Your task to perform on an android device: all mails in gmail Image 0: 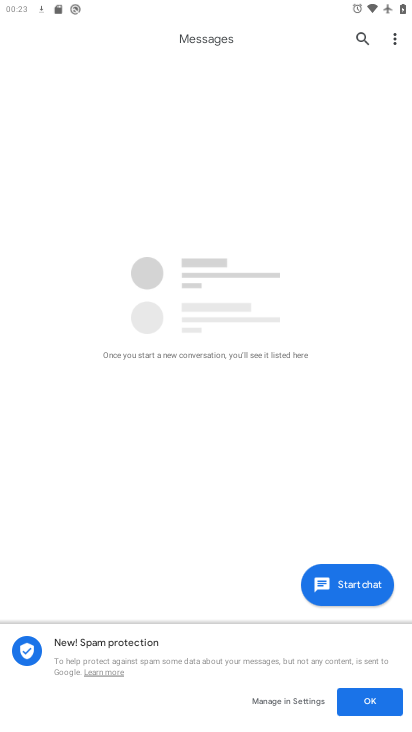
Step 0: press home button
Your task to perform on an android device: all mails in gmail Image 1: 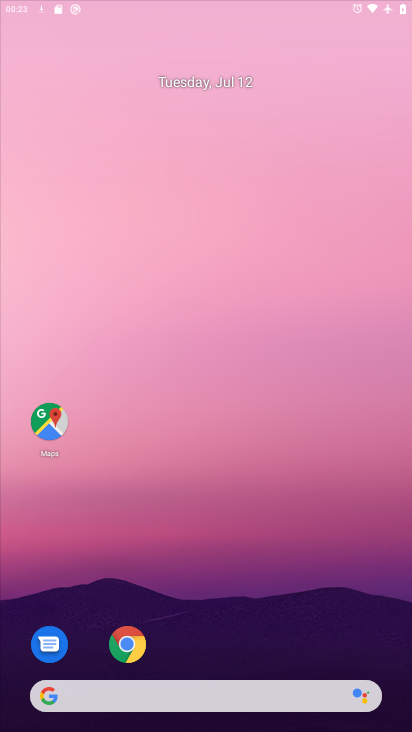
Step 1: drag from (208, 599) to (238, 255)
Your task to perform on an android device: all mails in gmail Image 2: 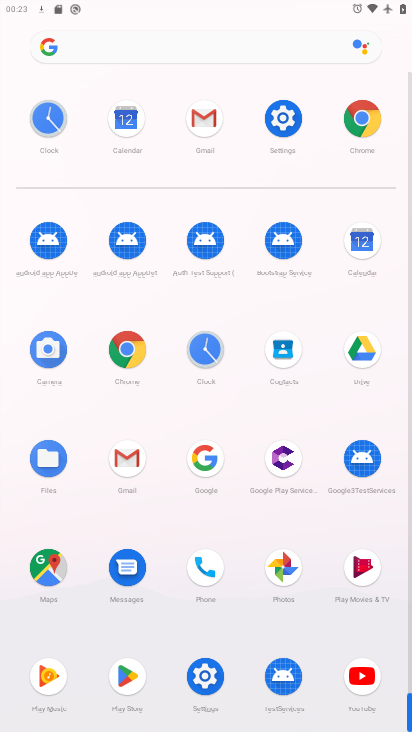
Step 2: click (270, 126)
Your task to perform on an android device: all mails in gmail Image 3: 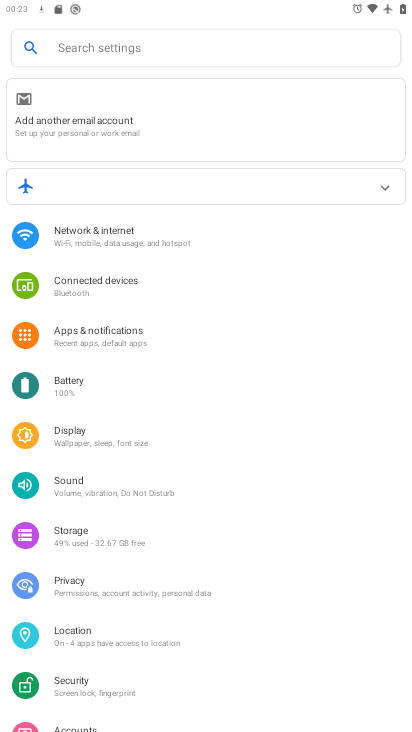
Step 3: press home button
Your task to perform on an android device: all mails in gmail Image 4: 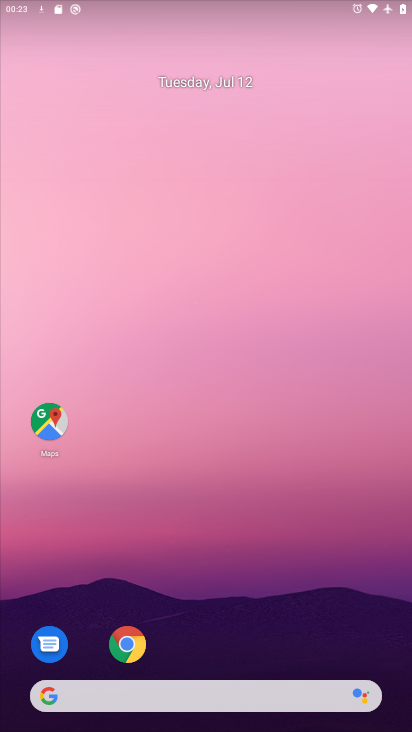
Step 4: drag from (126, 601) to (176, 151)
Your task to perform on an android device: all mails in gmail Image 5: 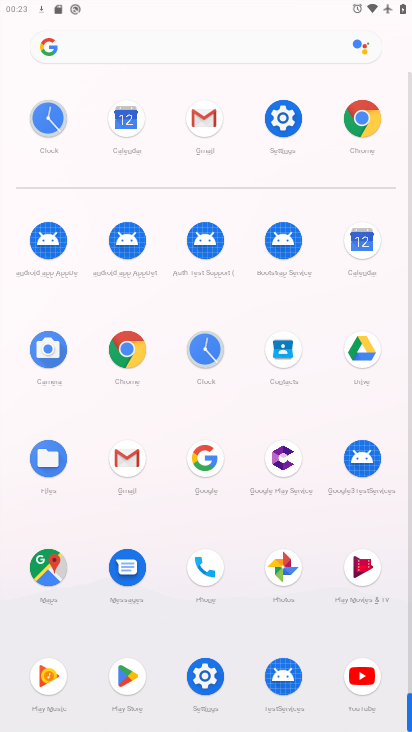
Step 5: click (204, 112)
Your task to perform on an android device: all mails in gmail Image 6: 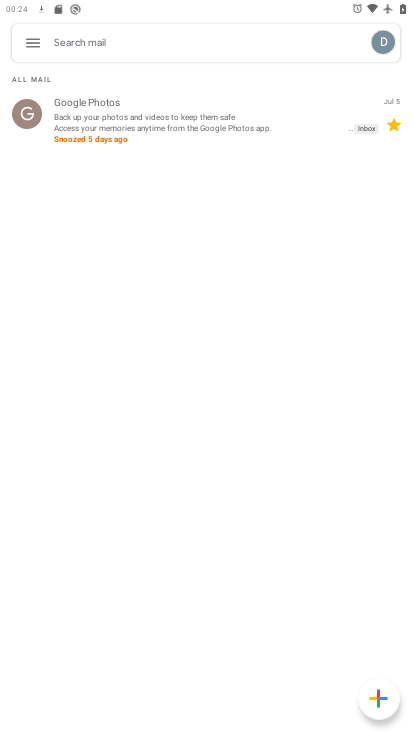
Step 6: click (27, 28)
Your task to perform on an android device: all mails in gmail Image 7: 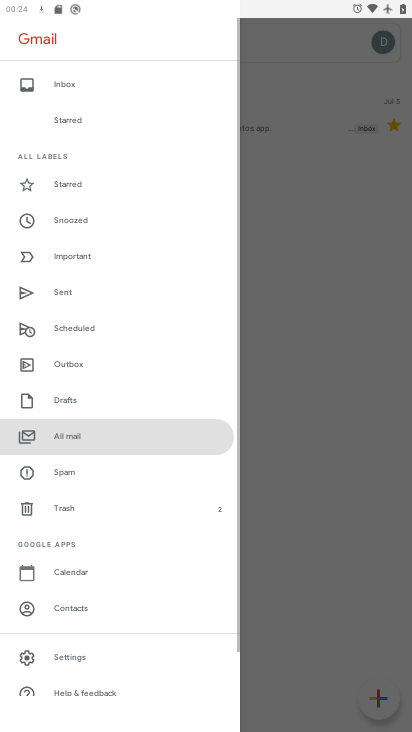
Step 7: click (121, 428)
Your task to perform on an android device: all mails in gmail Image 8: 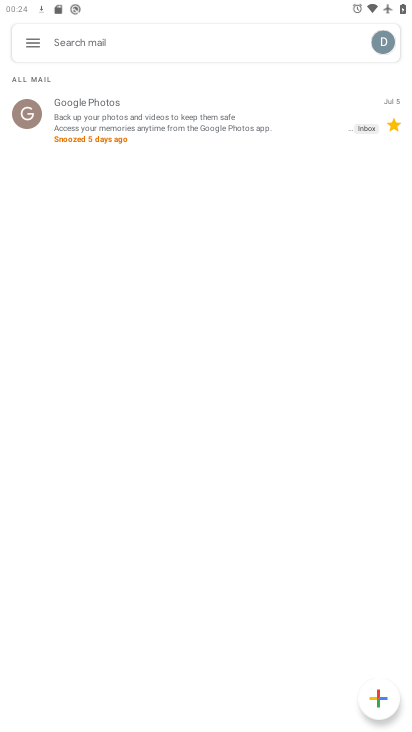
Step 8: task complete